Your task to perform on an android device: What's on my calendar tomorrow? Image 0: 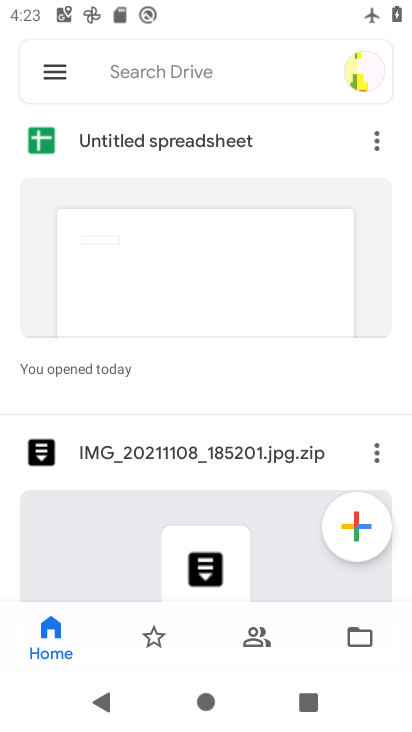
Step 0: press home button
Your task to perform on an android device: What's on my calendar tomorrow? Image 1: 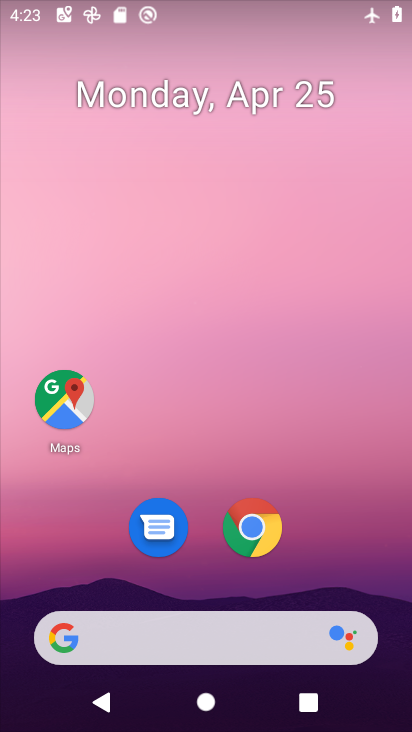
Step 1: drag from (388, 596) to (346, 158)
Your task to perform on an android device: What's on my calendar tomorrow? Image 2: 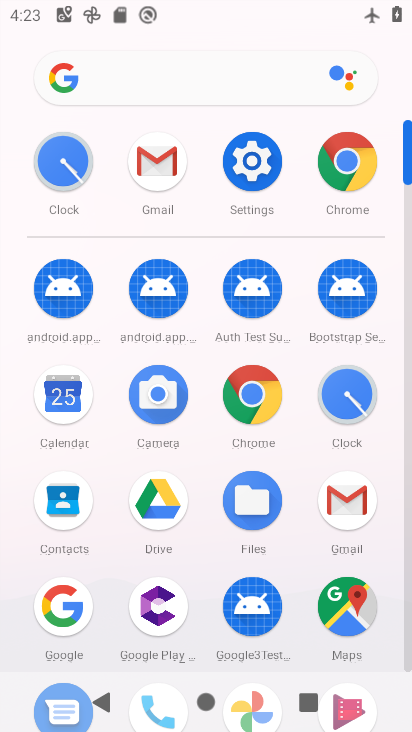
Step 2: click (407, 664)
Your task to perform on an android device: What's on my calendar tomorrow? Image 3: 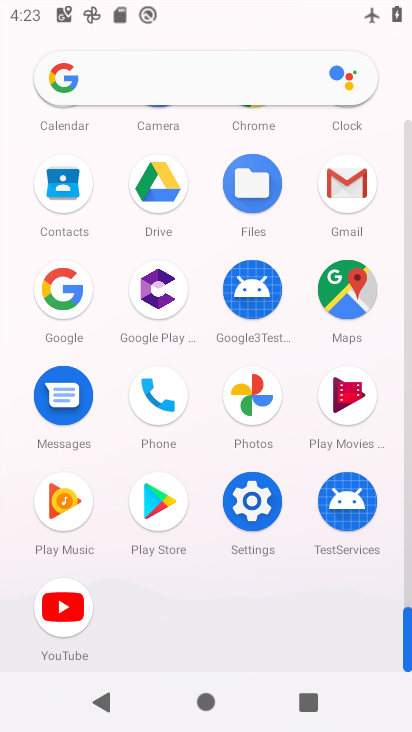
Step 3: click (408, 355)
Your task to perform on an android device: What's on my calendar tomorrow? Image 4: 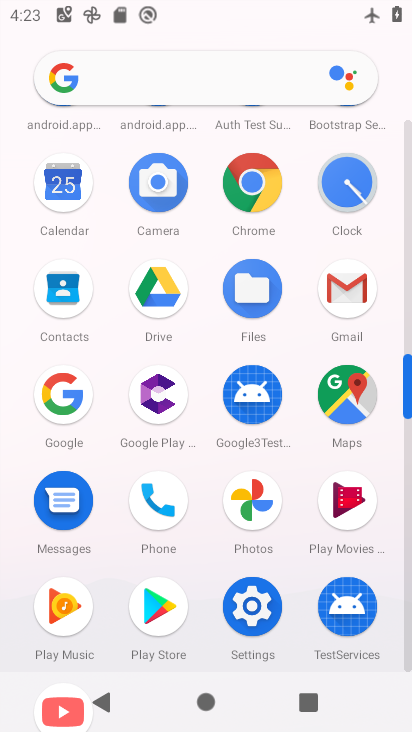
Step 4: click (60, 184)
Your task to perform on an android device: What's on my calendar tomorrow? Image 5: 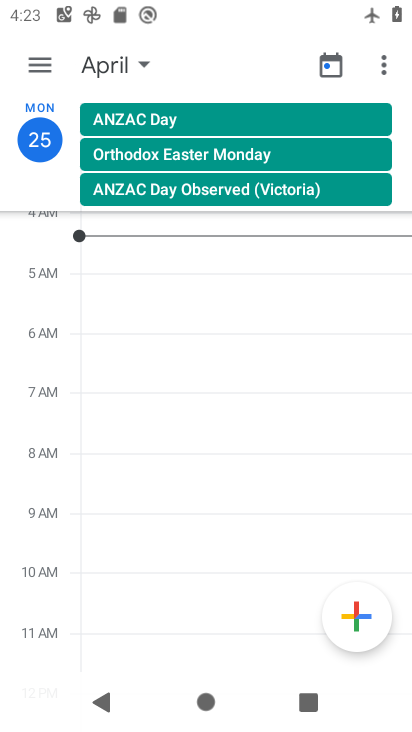
Step 5: click (40, 61)
Your task to perform on an android device: What's on my calendar tomorrow? Image 6: 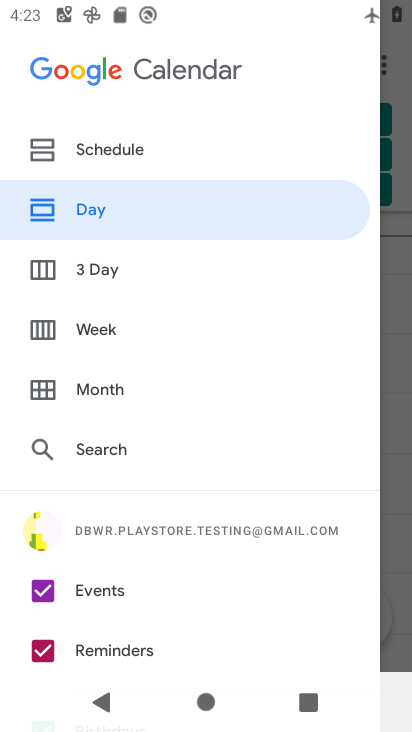
Step 6: click (127, 217)
Your task to perform on an android device: What's on my calendar tomorrow? Image 7: 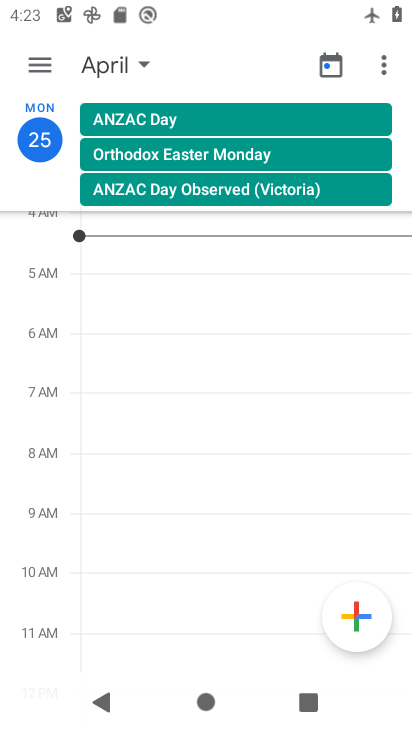
Step 7: click (138, 64)
Your task to perform on an android device: What's on my calendar tomorrow? Image 8: 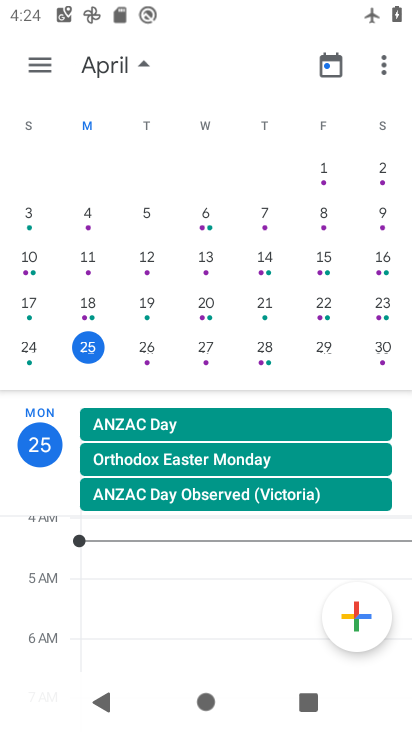
Step 8: click (145, 351)
Your task to perform on an android device: What's on my calendar tomorrow? Image 9: 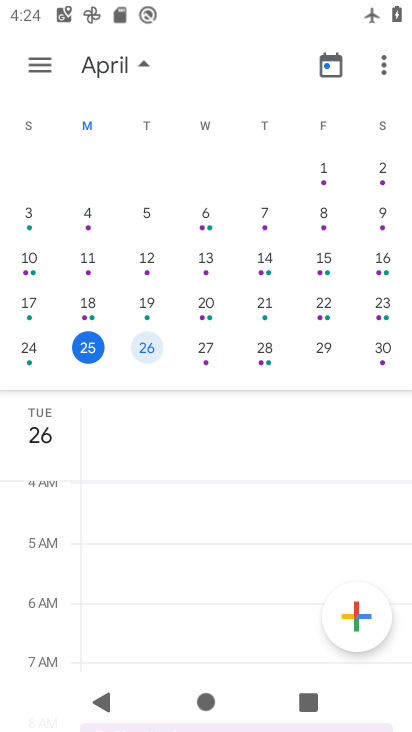
Step 9: click (140, 60)
Your task to perform on an android device: What's on my calendar tomorrow? Image 10: 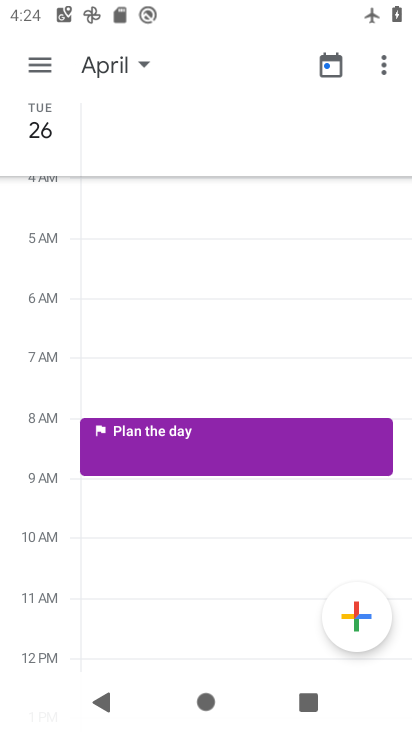
Step 10: task complete